Your task to perform on an android device: Go to Android settings Image 0: 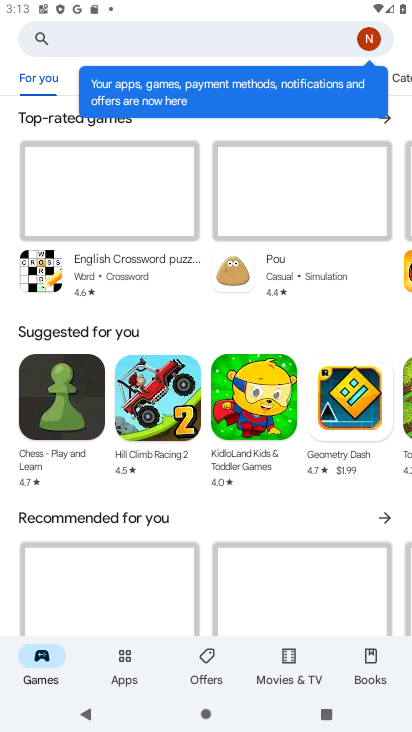
Step 0: press home button
Your task to perform on an android device: Go to Android settings Image 1: 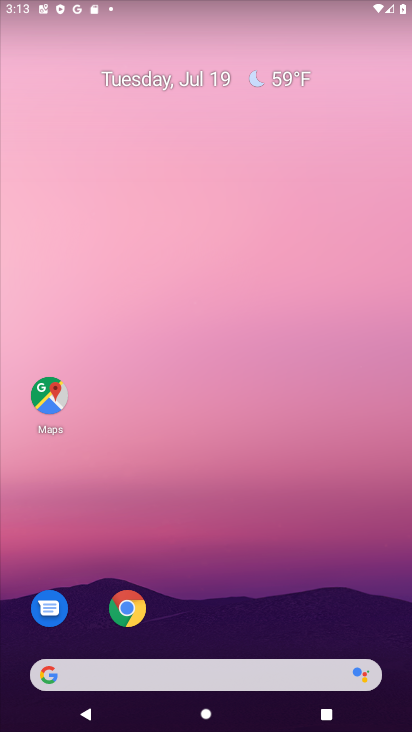
Step 1: drag from (290, 563) to (260, 152)
Your task to perform on an android device: Go to Android settings Image 2: 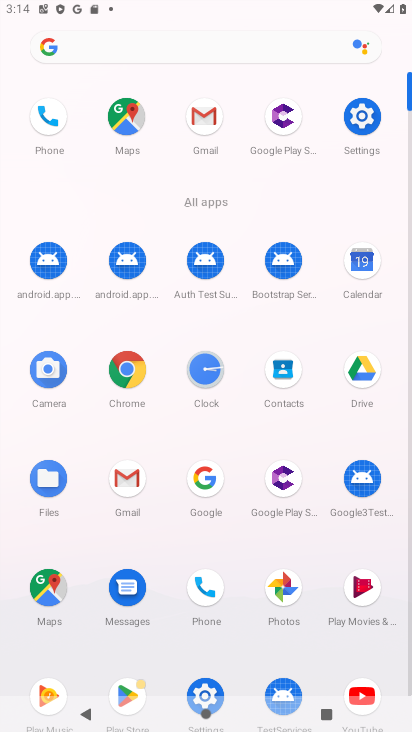
Step 2: click (366, 113)
Your task to perform on an android device: Go to Android settings Image 3: 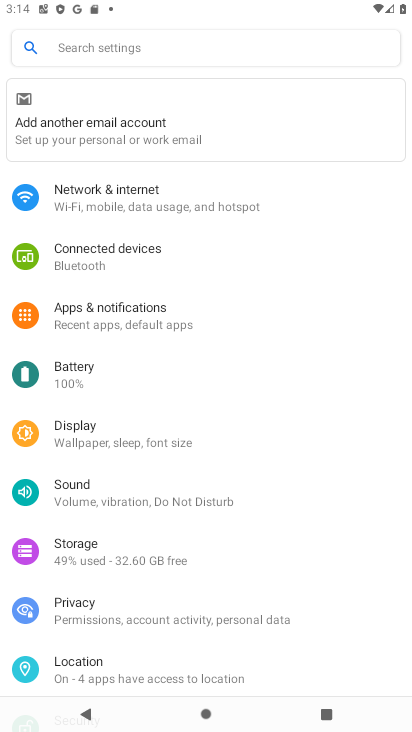
Step 3: task complete